Your task to perform on an android device: set an alarm Image 0: 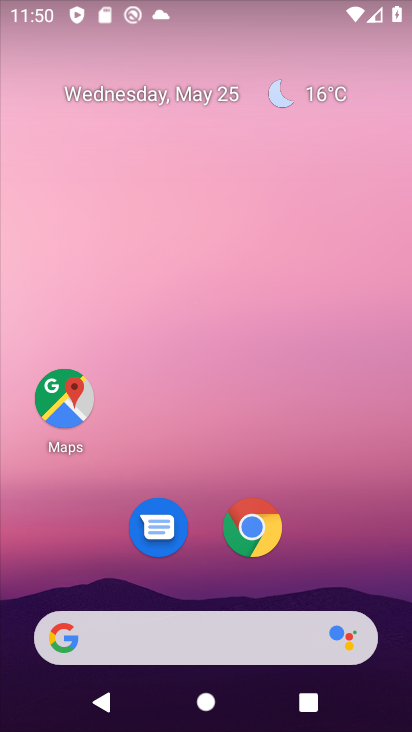
Step 0: drag from (354, 523) to (361, 143)
Your task to perform on an android device: set an alarm Image 1: 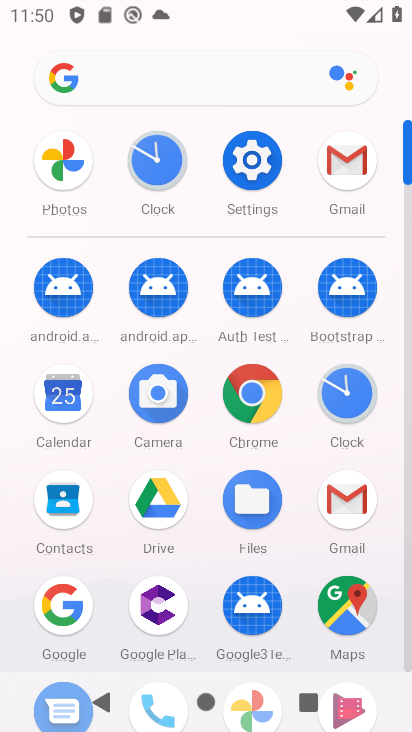
Step 1: click (365, 406)
Your task to perform on an android device: set an alarm Image 2: 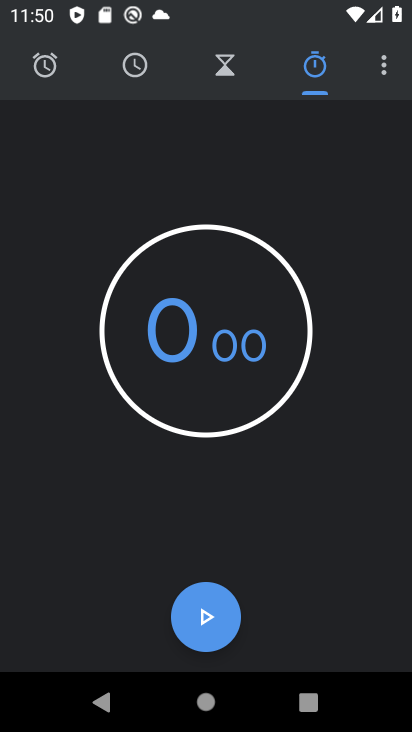
Step 2: click (38, 89)
Your task to perform on an android device: set an alarm Image 3: 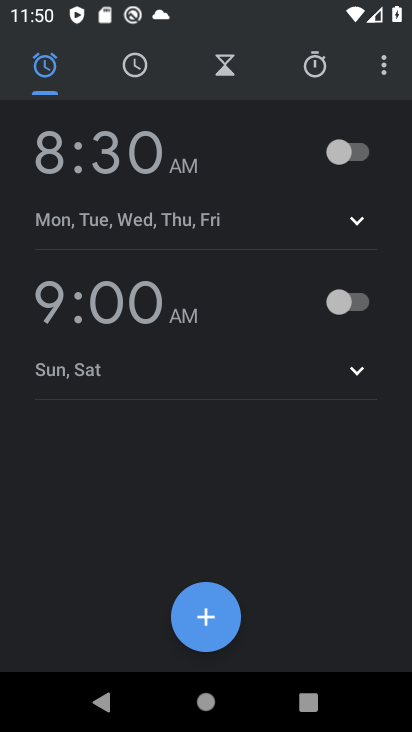
Step 3: click (216, 623)
Your task to perform on an android device: set an alarm Image 4: 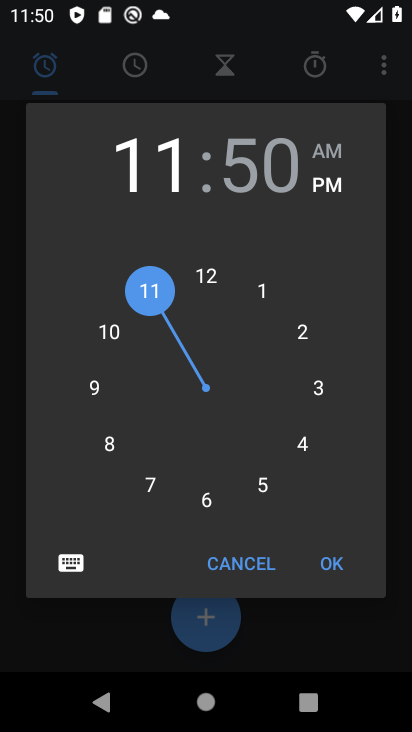
Step 4: click (333, 547)
Your task to perform on an android device: set an alarm Image 5: 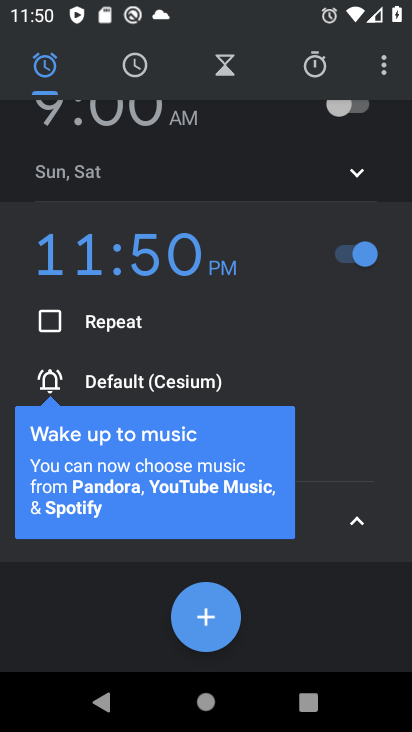
Step 5: task complete